Your task to perform on an android device: check out phone information Image 0: 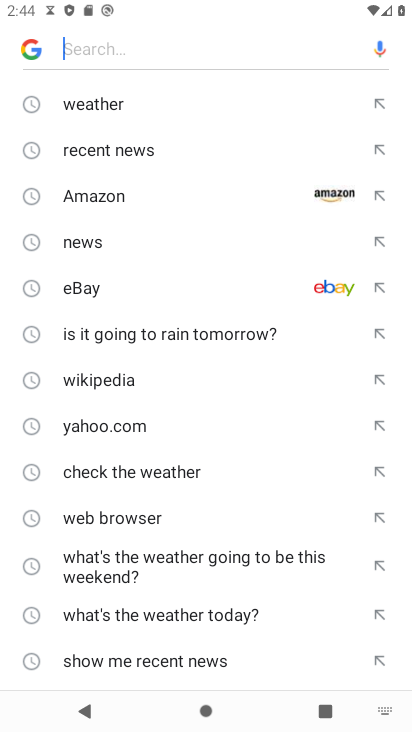
Step 0: drag from (229, 673) to (225, 135)
Your task to perform on an android device: check out phone information Image 1: 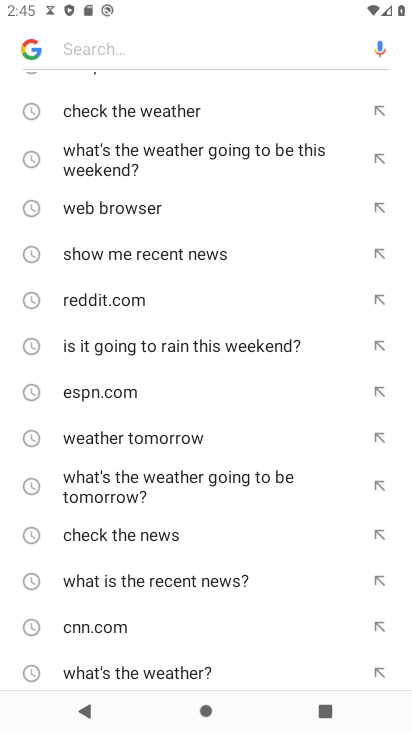
Step 1: press home button
Your task to perform on an android device: check out phone information Image 2: 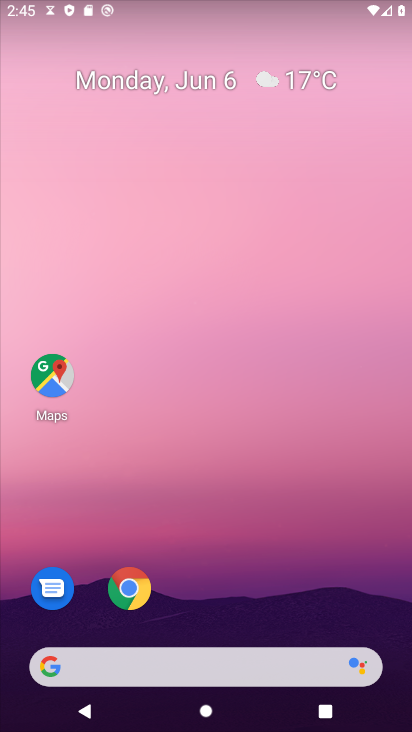
Step 2: drag from (228, 660) to (235, 191)
Your task to perform on an android device: check out phone information Image 3: 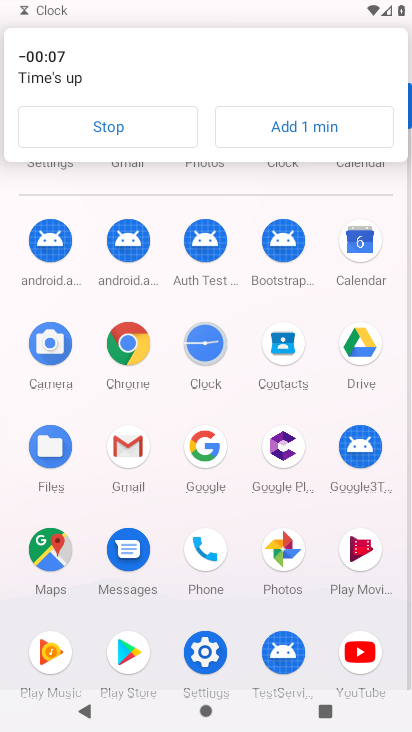
Step 3: click (112, 138)
Your task to perform on an android device: check out phone information Image 4: 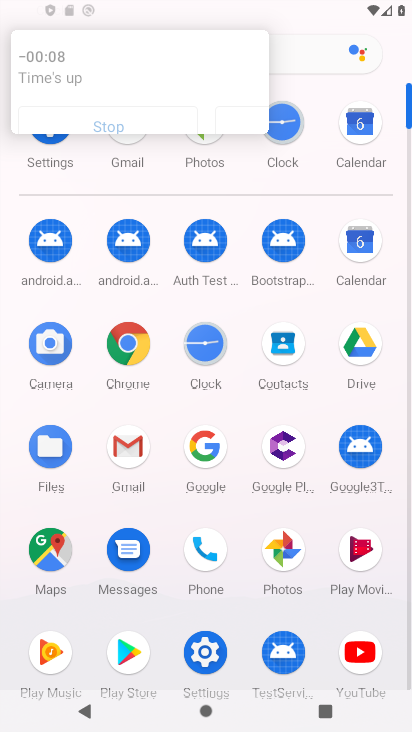
Step 4: click (200, 652)
Your task to perform on an android device: check out phone information Image 5: 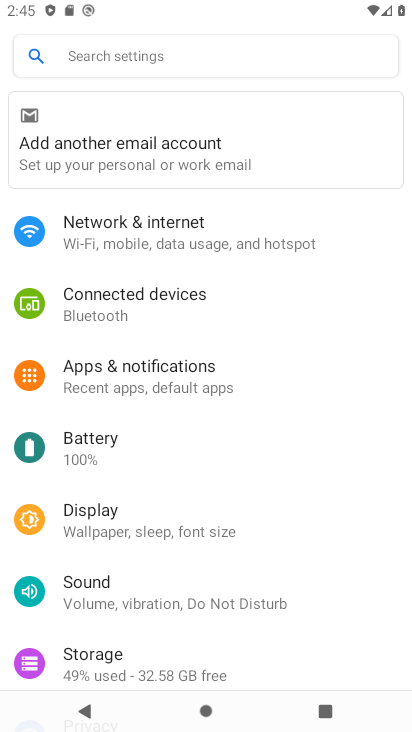
Step 5: drag from (193, 600) to (163, 95)
Your task to perform on an android device: check out phone information Image 6: 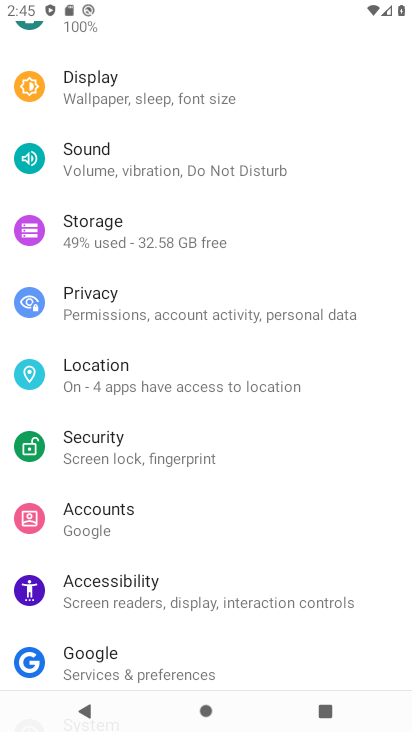
Step 6: drag from (197, 599) to (144, 20)
Your task to perform on an android device: check out phone information Image 7: 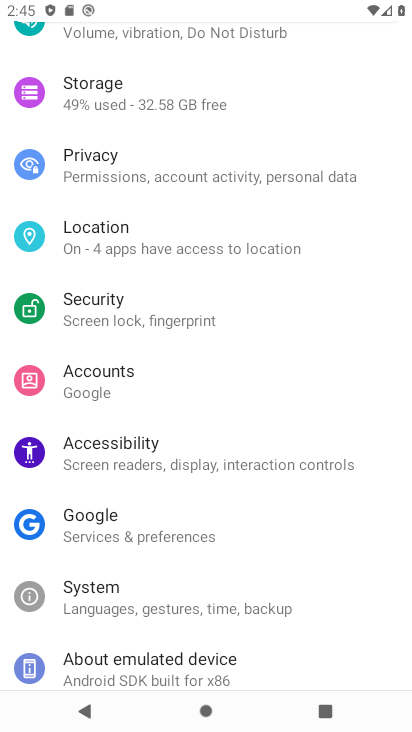
Step 7: click (197, 659)
Your task to perform on an android device: check out phone information Image 8: 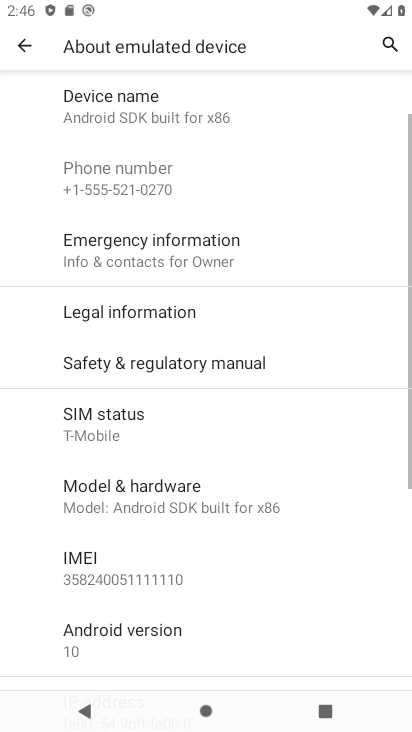
Step 8: task complete